Your task to perform on an android device: turn on notifications settings in the gmail app Image 0: 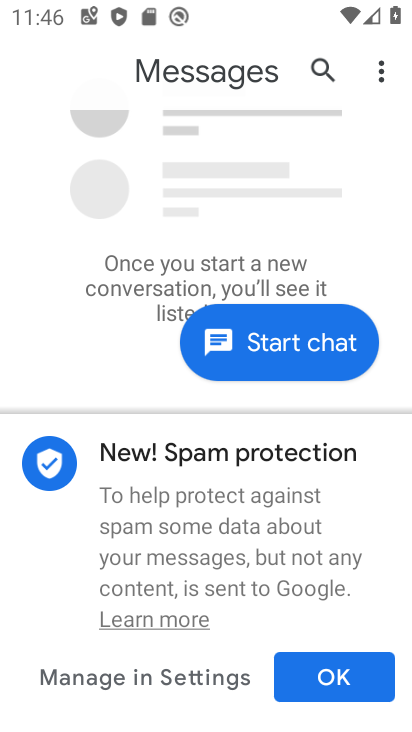
Step 0: press home button
Your task to perform on an android device: turn on notifications settings in the gmail app Image 1: 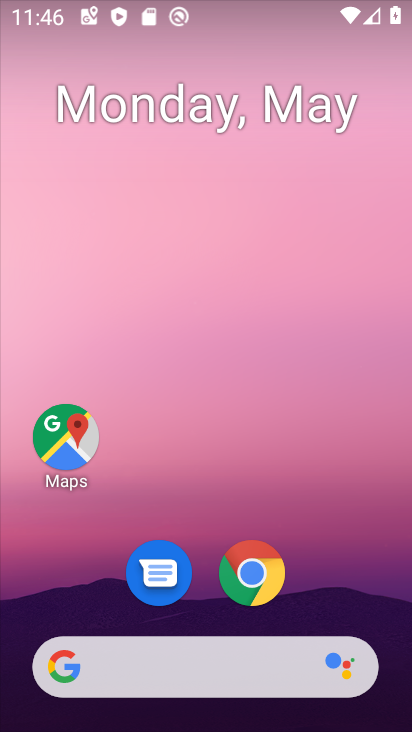
Step 1: drag from (305, 518) to (283, 4)
Your task to perform on an android device: turn on notifications settings in the gmail app Image 2: 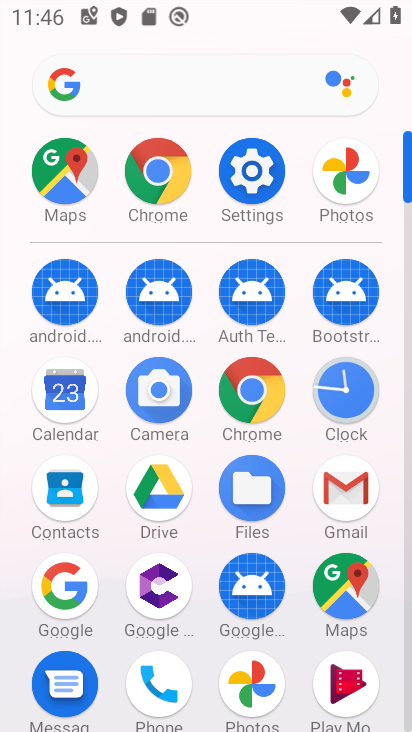
Step 2: click (350, 509)
Your task to perform on an android device: turn on notifications settings in the gmail app Image 3: 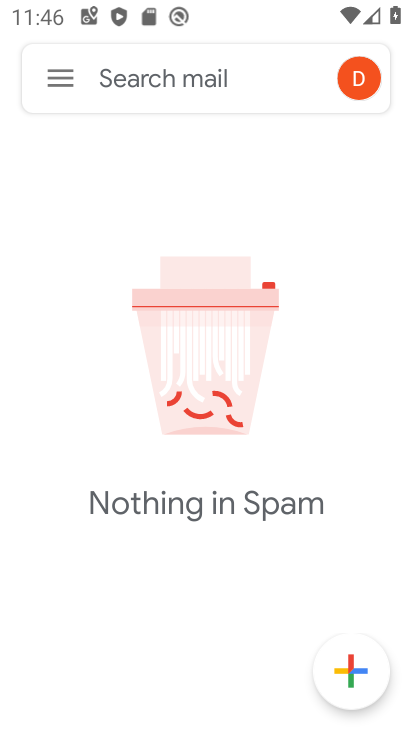
Step 3: click (64, 80)
Your task to perform on an android device: turn on notifications settings in the gmail app Image 4: 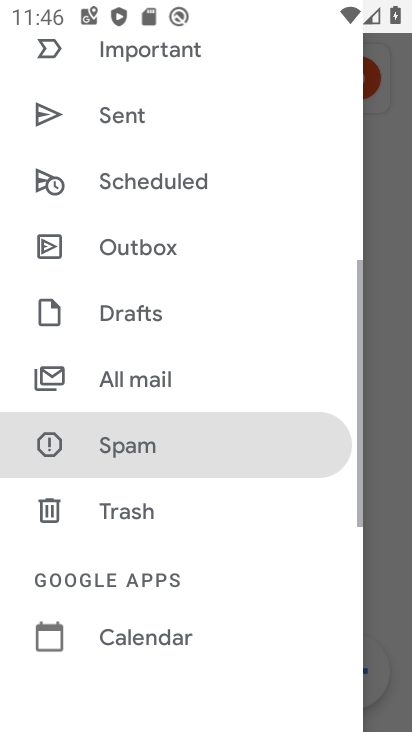
Step 4: drag from (156, 560) to (228, 86)
Your task to perform on an android device: turn on notifications settings in the gmail app Image 5: 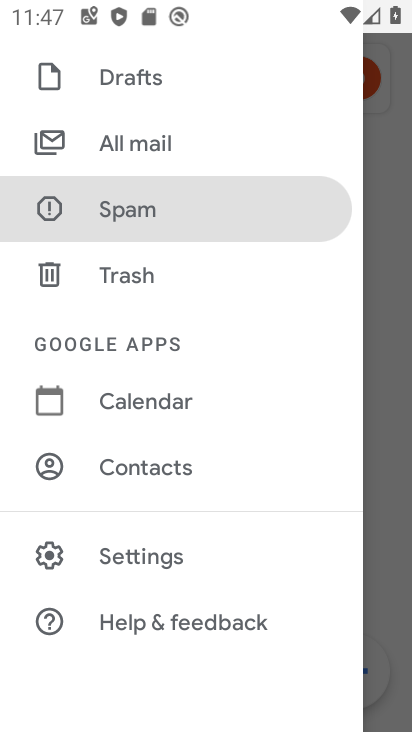
Step 5: click (166, 551)
Your task to perform on an android device: turn on notifications settings in the gmail app Image 6: 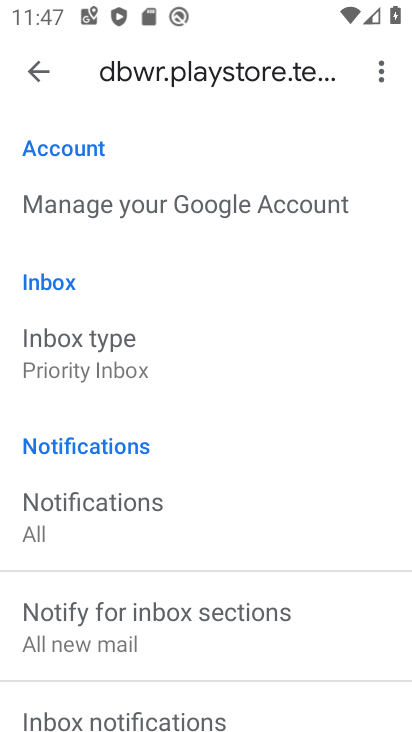
Step 6: click (45, 48)
Your task to perform on an android device: turn on notifications settings in the gmail app Image 7: 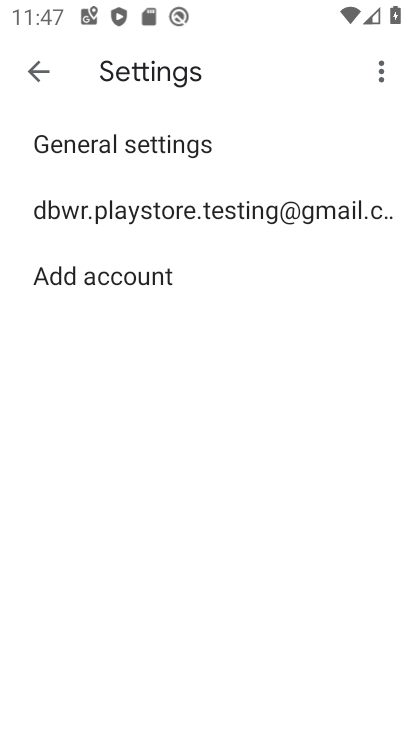
Step 7: click (174, 146)
Your task to perform on an android device: turn on notifications settings in the gmail app Image 8: 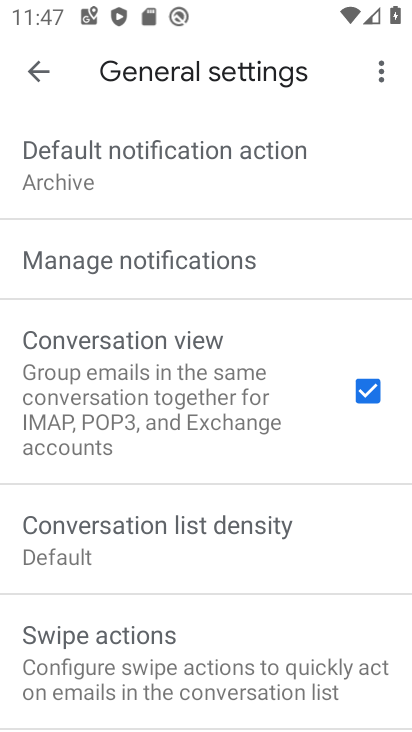
Step 8: click (178, 258)
Your task to perform on an android device: turn on notifications settings in the gmail app Image 9: 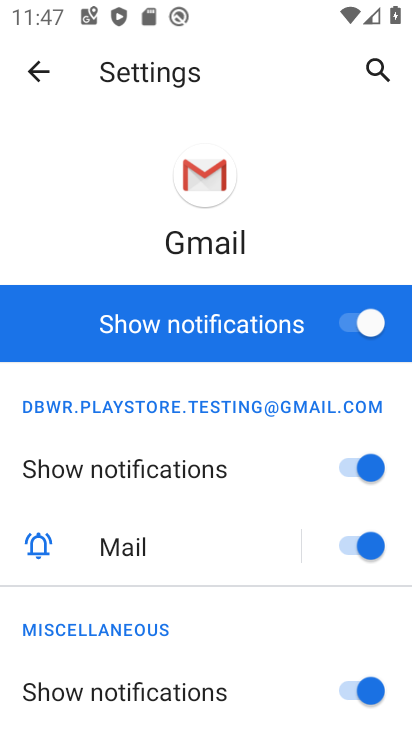
Step 9: task complete